Your task to perform on an android device: turn notification dots on Image 0: 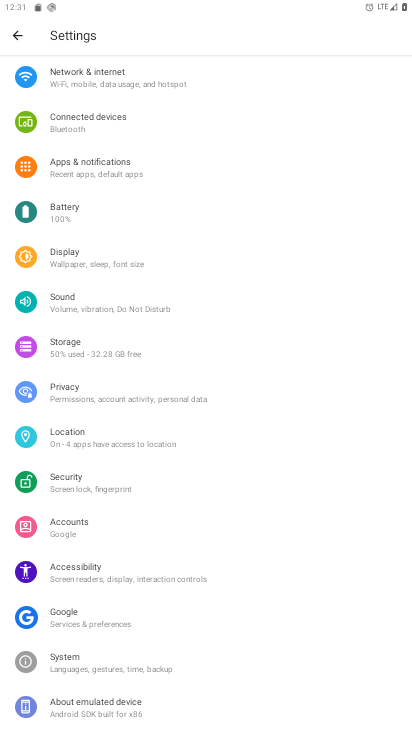
Step 0: press home button
Your task to perform on an android device: turn notification dots on Image 1: 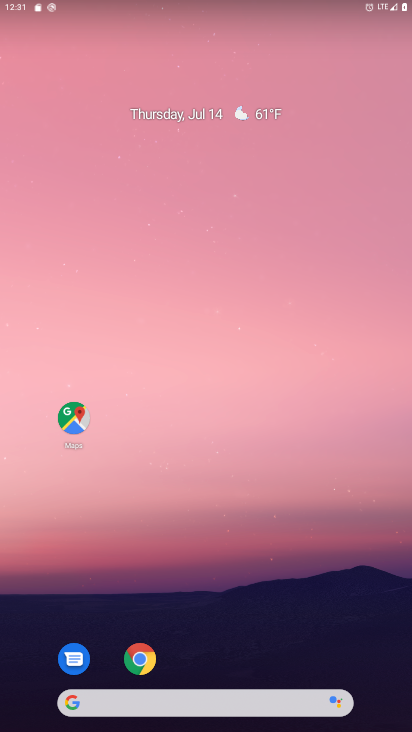
Step 1: drag from (225, 669) to (209, 76)
Your task to perform on an android device: turn notification dots on Image 2: 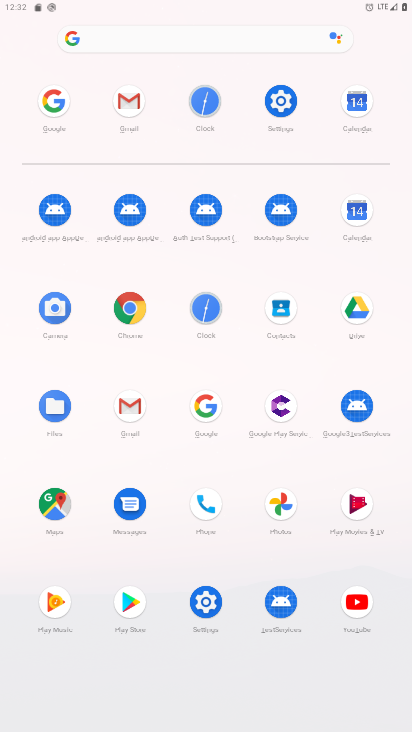
Step 2: click (276, 93)
Your task to perform on an android device: turn notification dots on Image 3: 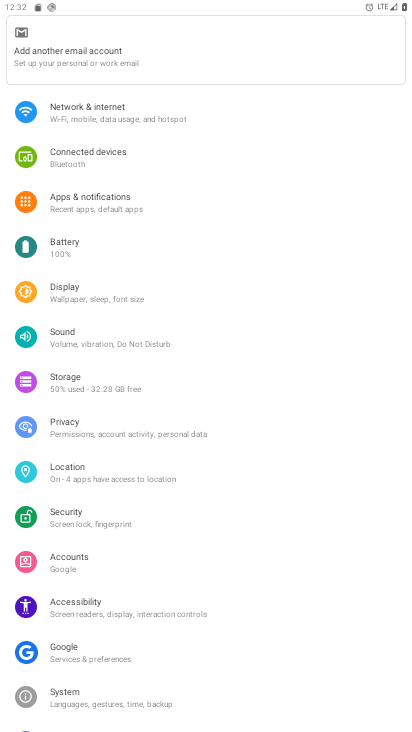
Step 3: click (151, 194)
Your task to perform on an android device: turn notification dots on Image 4: 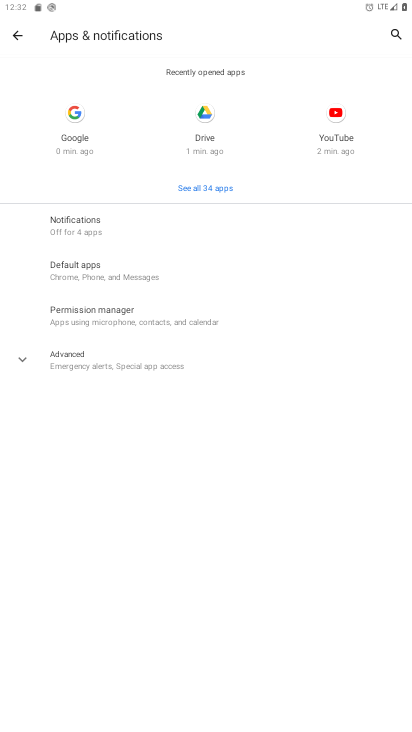
Step 4: click (105, 222)
Your task to perform on an android device: turn notification dots on Image 5: 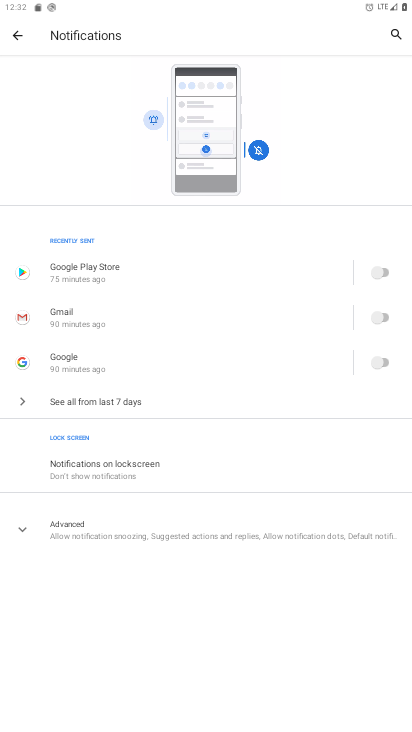
Step 5: click (39, 528)
Your task to perform on an android device: turn notification dots on Image 6: 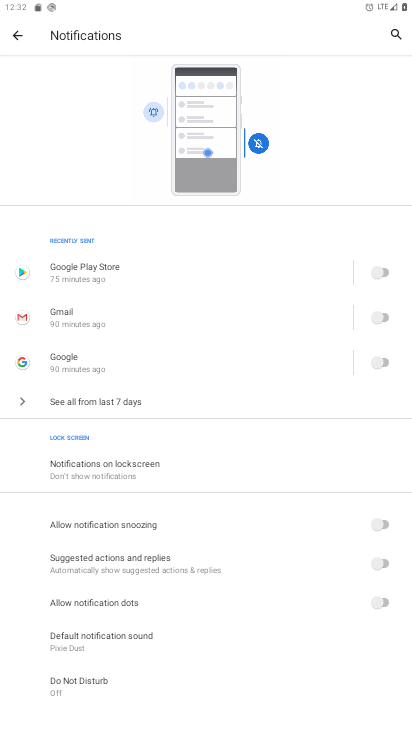
Step 6: click (388, 601)
Your task to perform on an android device: turn notification dots on Image 7: 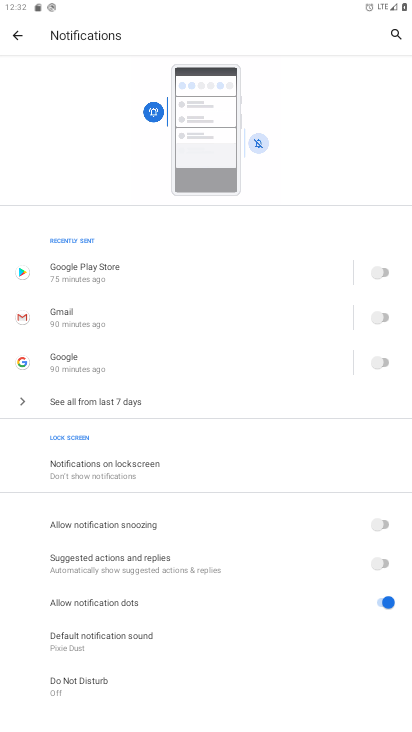
Step 7: task complete